Your task to perform on an android device: Open the calendar app, open the side menu, and click the "Day" option Image 0: 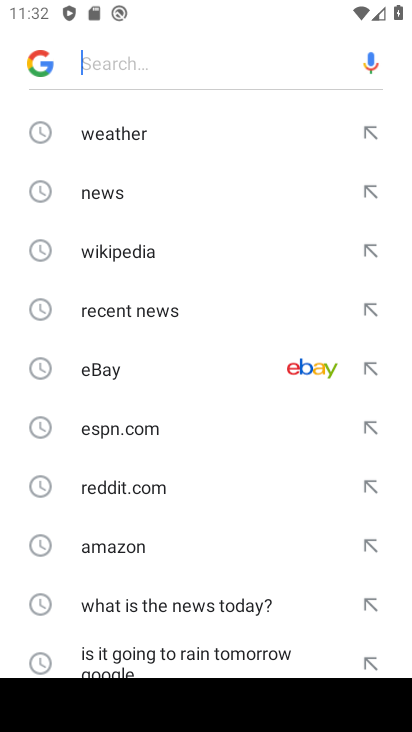
Step 0: press home button
Your task to perform on an android device: Open the calendar app, open the side menu, and click the "Day" option Image 1: 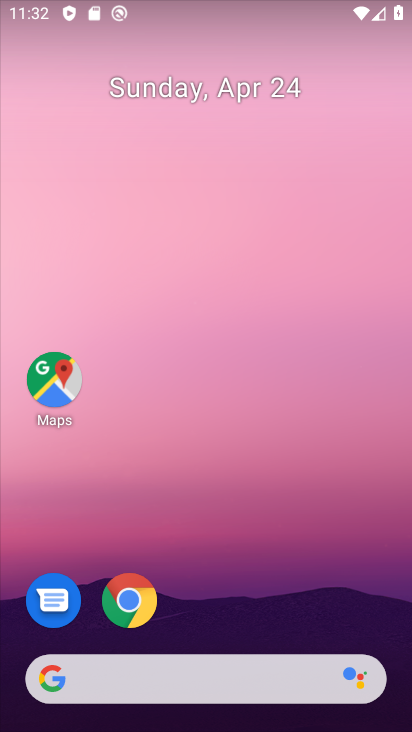
Step 1: drag from (217, 707) to (175, 130)
Your task to perform on an android device: Open the calendar app, open the side menu, and click the "Day" option Image 2: 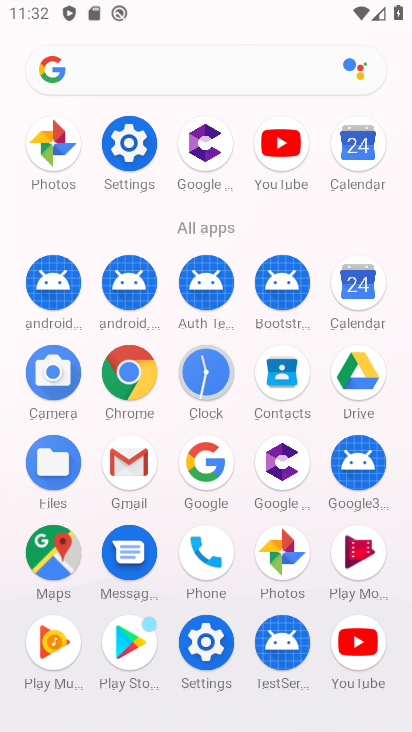
Step 2: click (357, 298)
Your task to perform on an android device: Open the calendar app, open the side menu, and click the "Day" option Image 3: 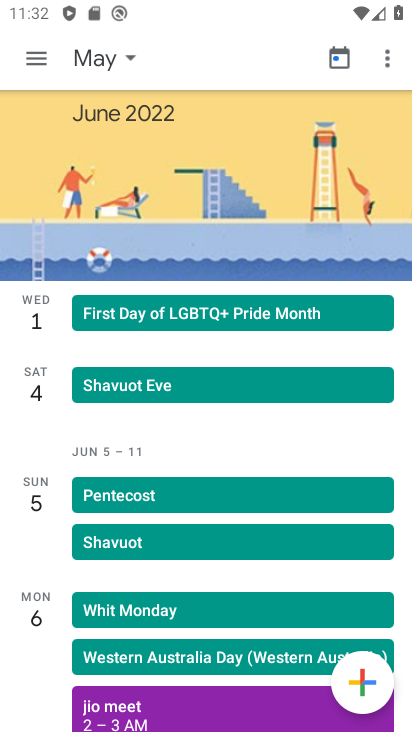
Step 3: click (31, 62)
Your task to perform on an android device: Open the calendar app, open the side menu, and click the "Day" option Image 4: 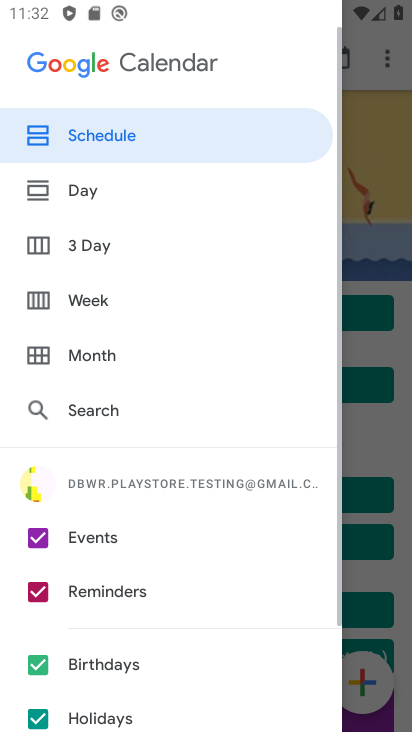
Step 4: click (74, 194)
Your task to perform on an android device: Open the calendar app, open the side menu, and click the "Day" option Image 5: 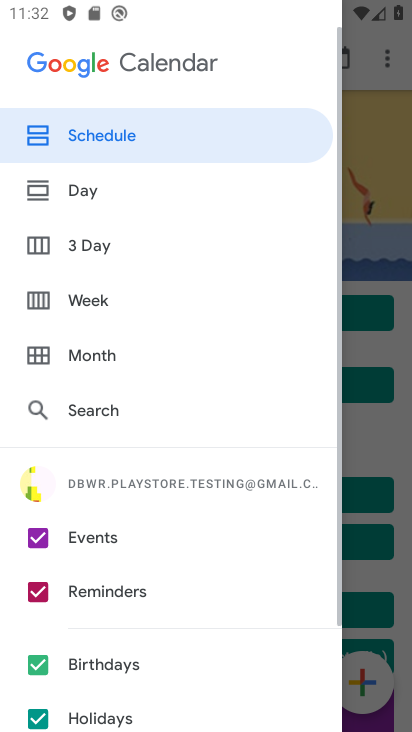
Step 5: click (91, 191)
Your task to perform on an android device: Open the calendar app, open the side menu, and click the "Day" option Image 6: 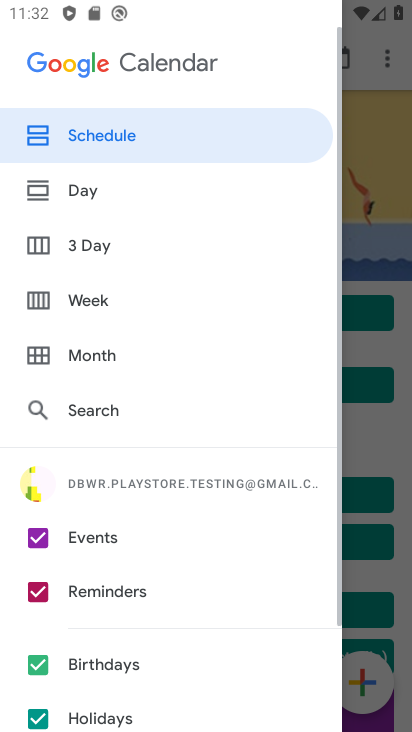
Step 6: click (59, 193)
Your task to perform on an android device: Open the calendar app, open the side menu, and click the "Day" option Image 7: 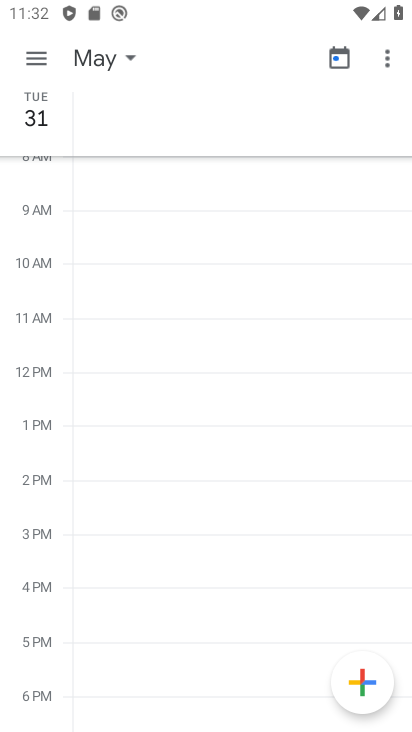
Step 7: task complete